Your task to perform on an android device: manage bookmarks in the chrome app Image 0: 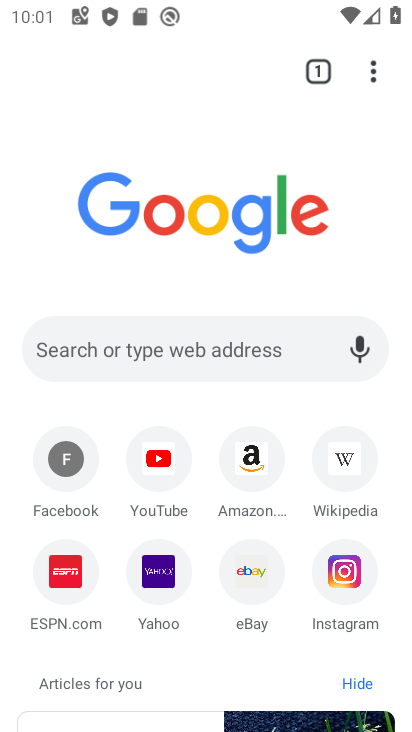
Step 0: click (387, 71)
Your task to perform on an android device: manage bookmarks in the chrome app Image 1: 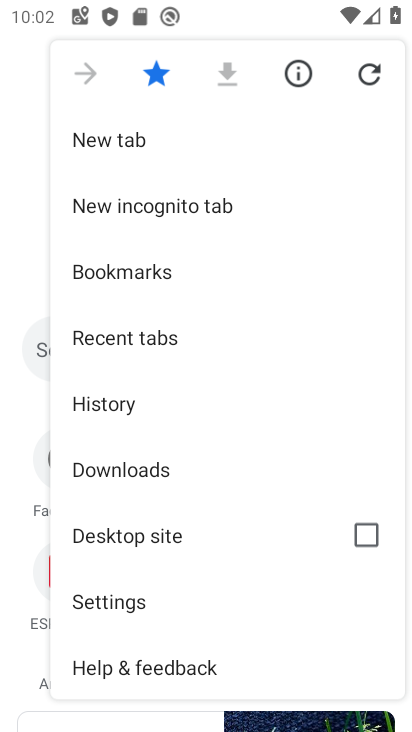
Step 1: click (112, 598)
Your task to perform on an android device: manage bookmarks in the chrome app Image 2: 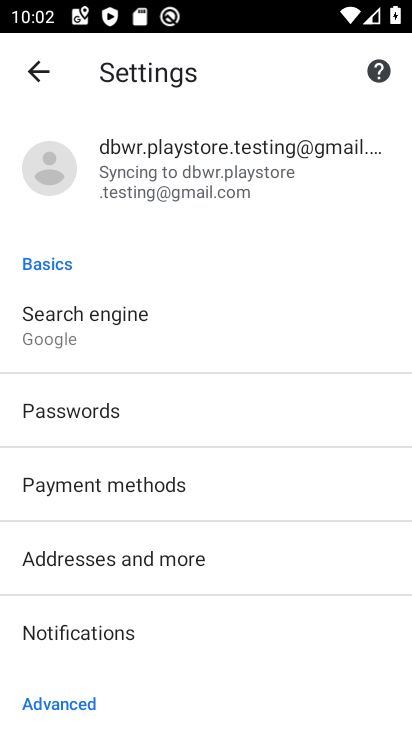
Step 2: drag from (112, 598) to (167, 88)
Your task to perform on an android device: manage bookmarks in the chrome app Image 3: 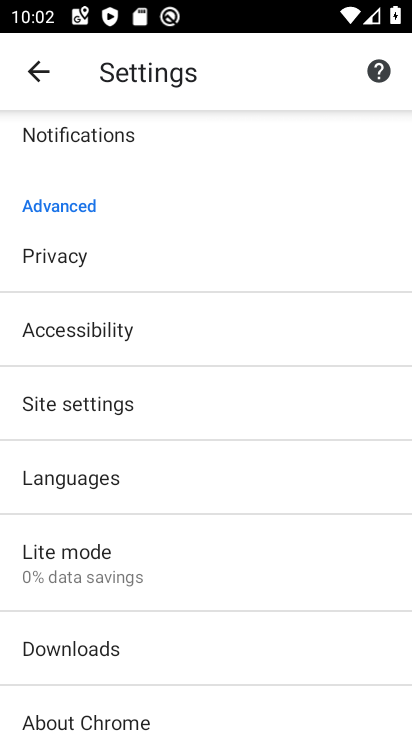
Step 3: drag from (139, 597) to (175, 117)
Your task to perform on an android device: manage bookmarks in the chrome app Image 4: 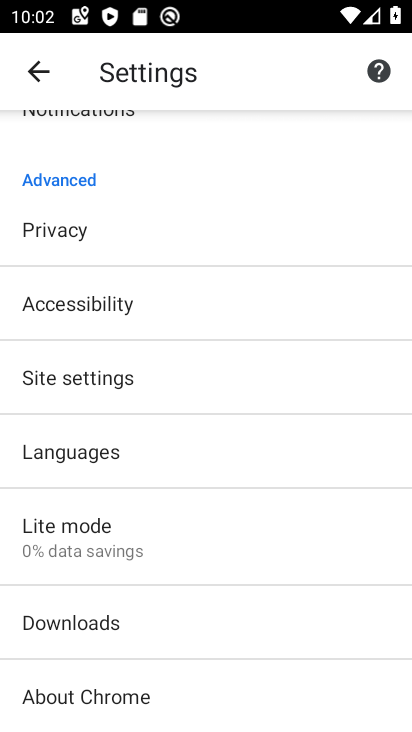
Step 4: click (38, 75)
Your task to perform on an android device: manage bookmarks in the chrome app Image 5: 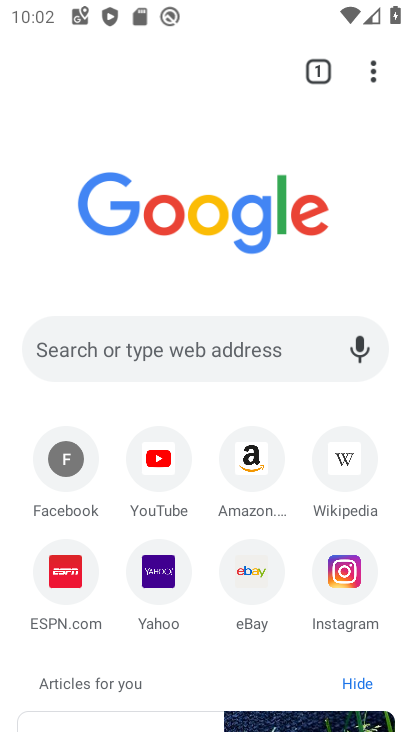
Step 5: click (387, 66)
Your task to perform on an android device: manage bookmarks in the chrome app Image 6: 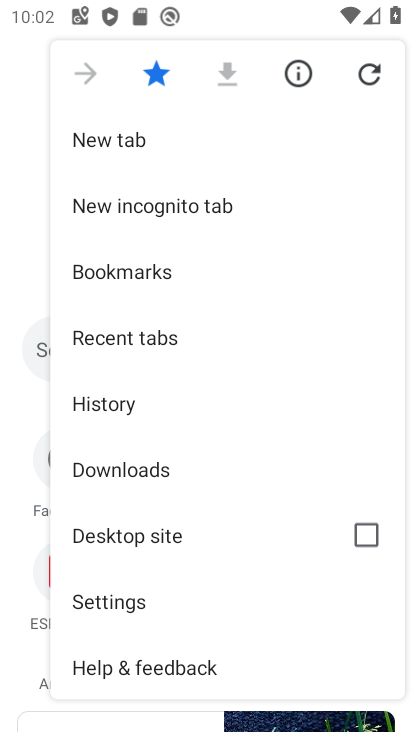
Step 6: click (150, 278)
Your task to perform on an android device: manage bookmarks in the chrome app Image 7: 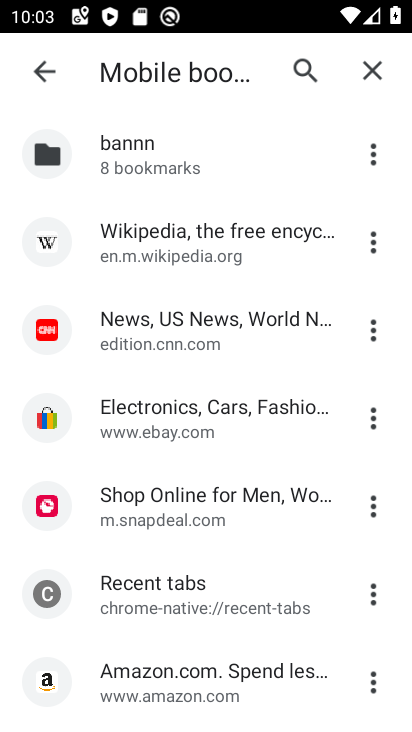
Step 7: click (388, 505)
Your task to perform on an android device: manage bookmarks in the chrome app Image 8: 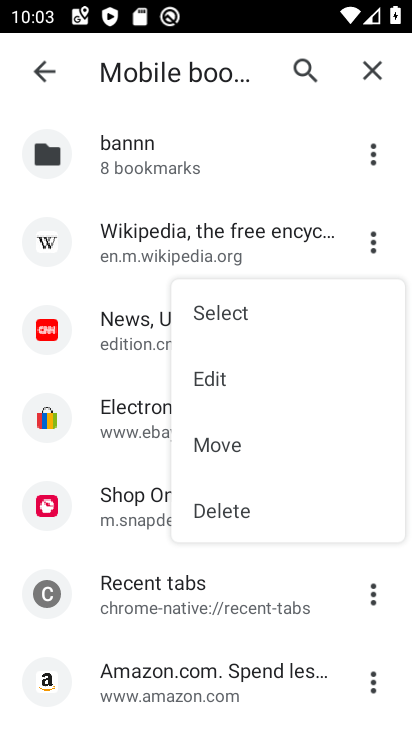
Step 8: click (325, 517)
Your task to perform on an android device: manage bookmarks in the chrome app Image 9: 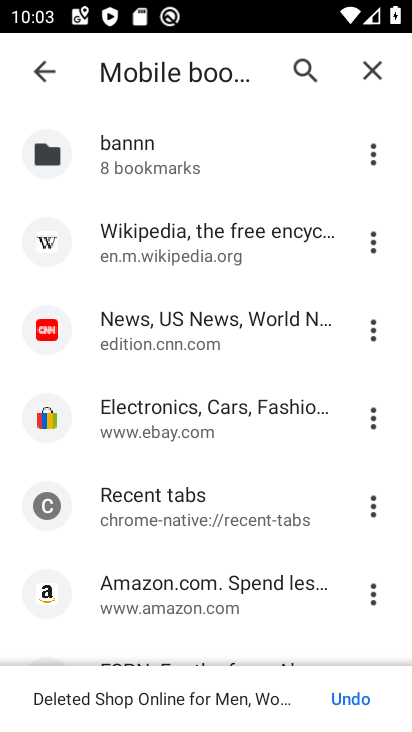
Step 9: task complete